Your task to perform on an android device: change the clock display to show seconds Image 0: 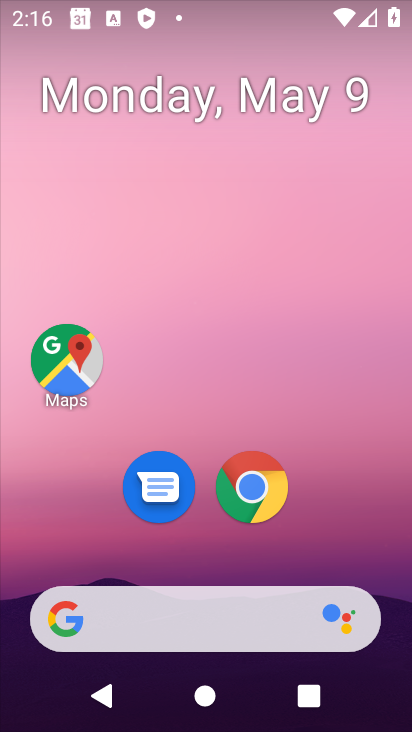
Step 0: drag from (360, 547) to (277, 96)
Your task to perform on an android device: change the clock display to show seconds Image 1: 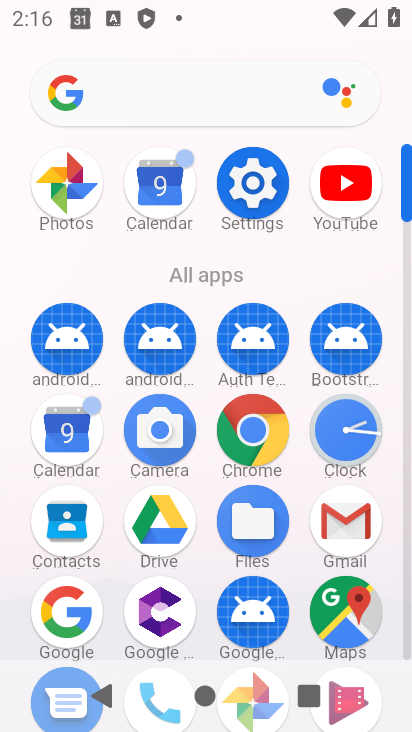
Step 1: click (360, 440)
Your task to perform on an android device: change the clock display to show seconds Image 2: 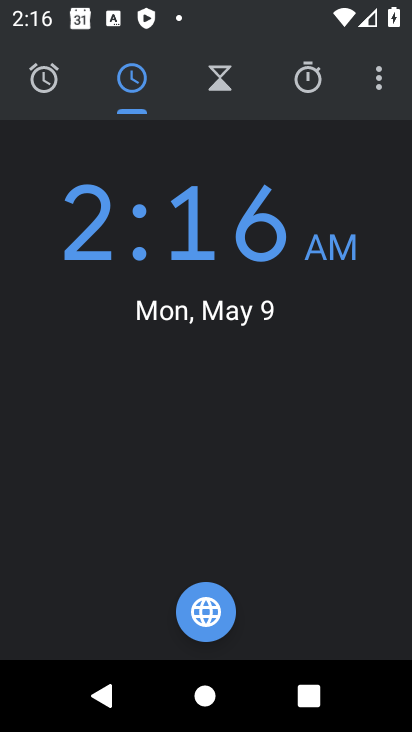
Step 2: click (369, 80)
Your task to perform on an android device: change the clock display to show seconds Image 3: 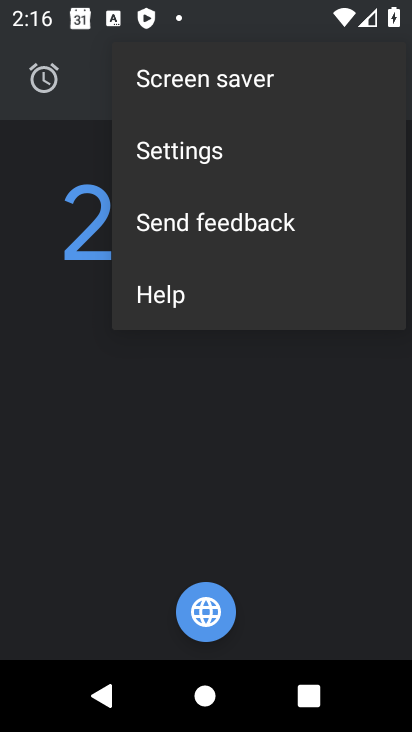
Step 3: click (278, 156)
Your task to perform on an android device: change the clock display to show seconds Image 4: 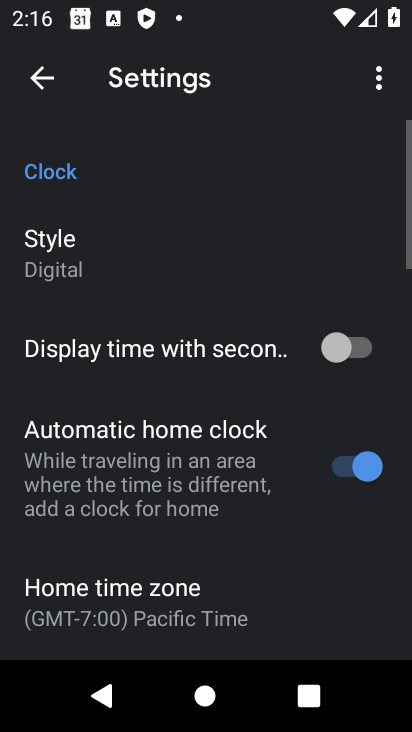
Step 4: click (357, 352)
Your task to perform on an android device: change the clock display to show seconds Image 5: 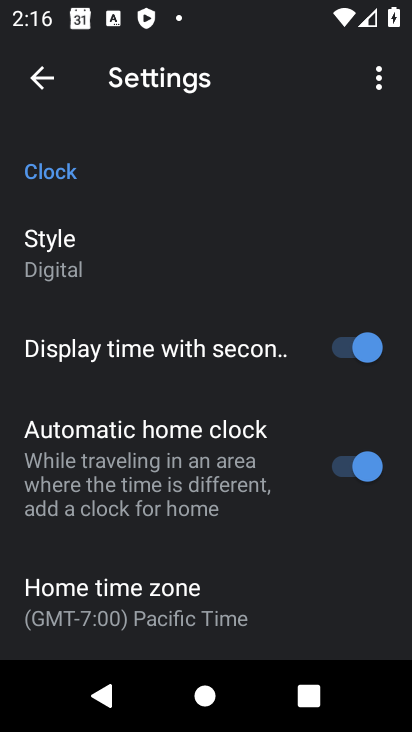
Step 5: click (46, 82)
Your task to perform on an android device: change the clock display to show seconds Image 6: 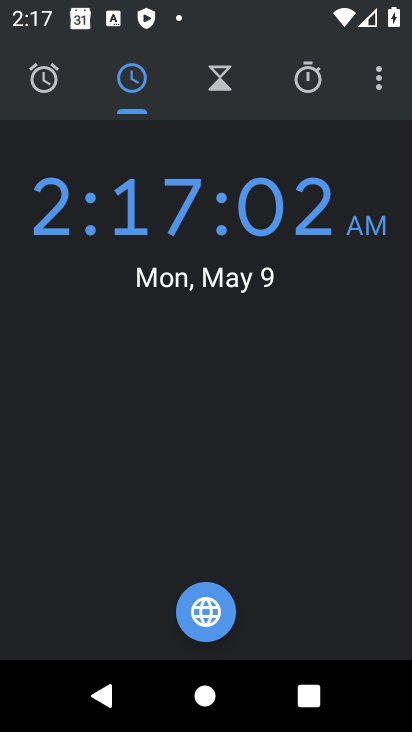
Step 6: task complete